Your task to perform on an android device: Open calendar and show me the first week of next month Image 0: 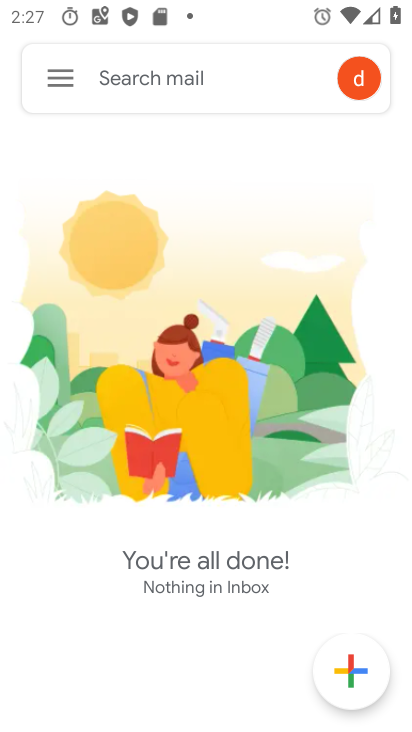
Step 0: press home button
Your task to perform on an android device: Open calendar and show me the first week of next month Image 1: 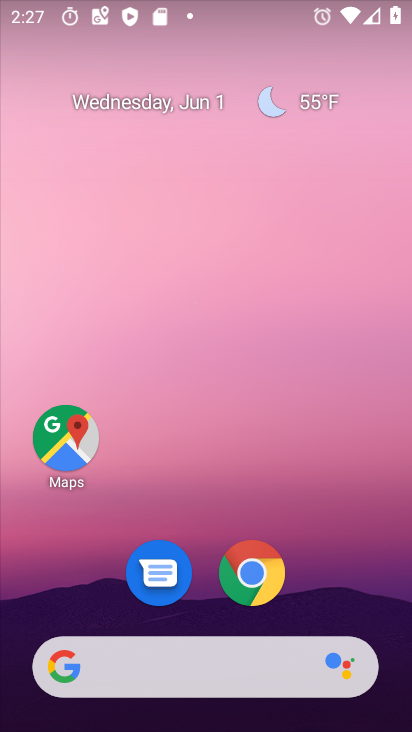
Step 1: drag from (322, 554) to (352, 89)
Your task to perform on an android device: Open calendar and show me the first week of next month Image 2: 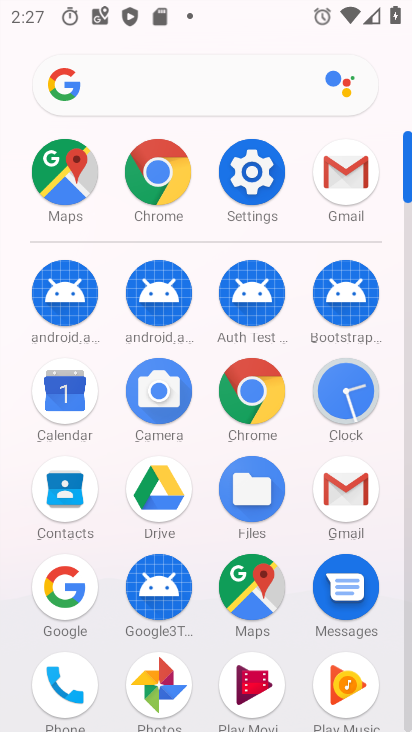
Step 2: click (40, 386)
Your task to perform on an android device: Open calendar and show me the first week of next month Image 3: 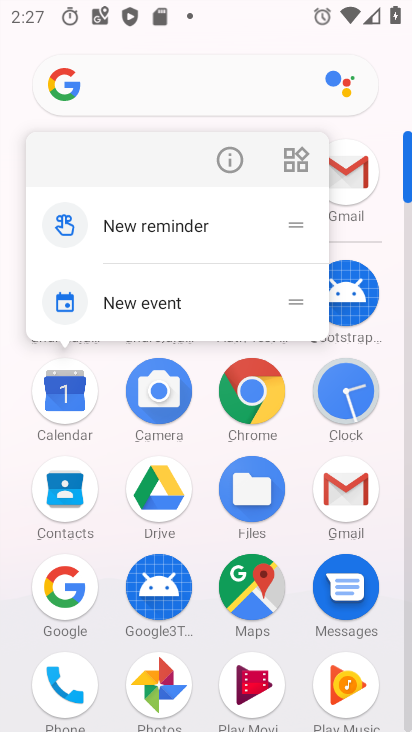
Step 3: click (57, 417)
Your task to perform on an android device: Open calendar and show me the first week of next month Image 4: 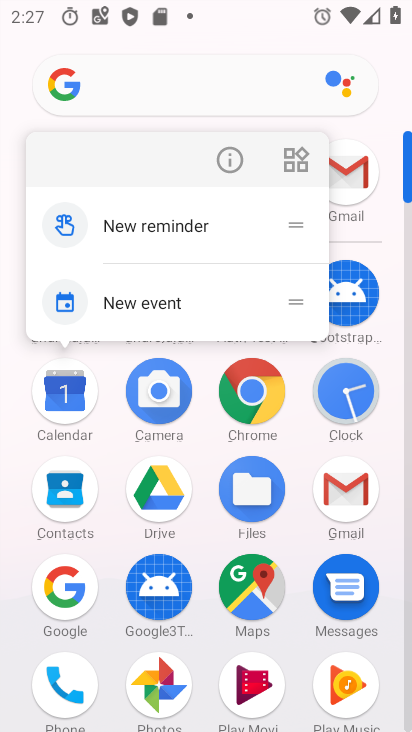
Step 4: click (57, 417)
Your task to perform on an android device: Open calendar and show me the first week of next month Image 5: 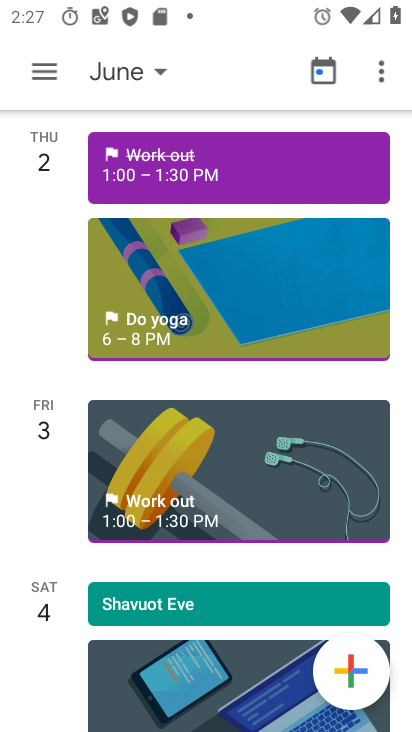
Step 5: click (55, 402)
Your task to perform on an android device: Open calendar and show me the first week of next month Image 6: 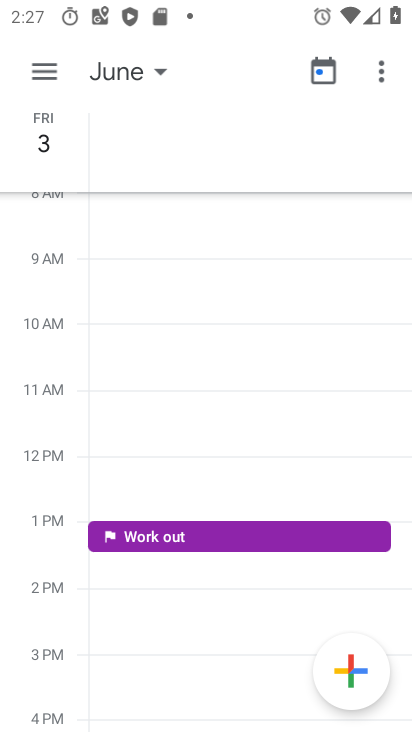
Step 6: click (149, 74)
Your task to perform on an android device: Open calendar and show me the first week of next month Image 7: 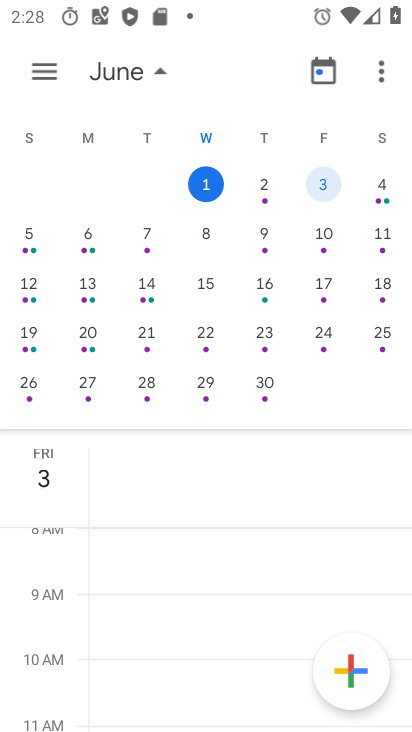
Step 7: drag from (287, 260) to (3, 242)
Your task to perform on an android device: Open calendar and show me the first week of next month Image 8: 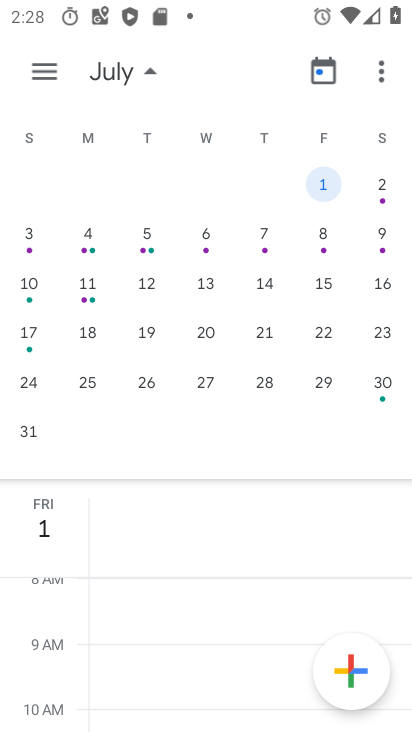
Step 8: click (137, 233)
Your task to perform on an android device: Open calendar and show me the first week of next month Image 9: 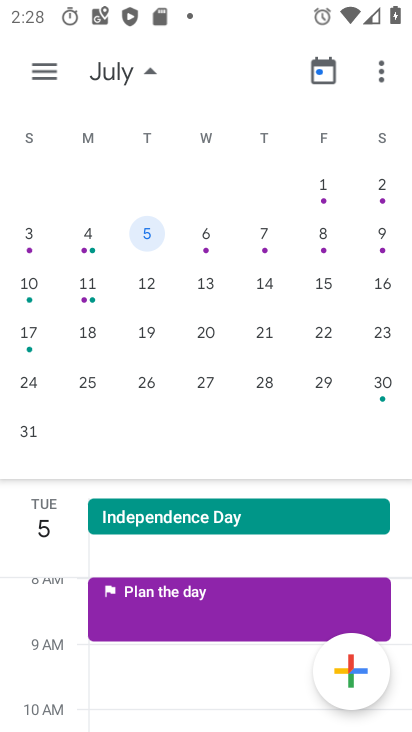
Step 9: task complete